Your task to perform on an android device: Go to Amazon Image 0: 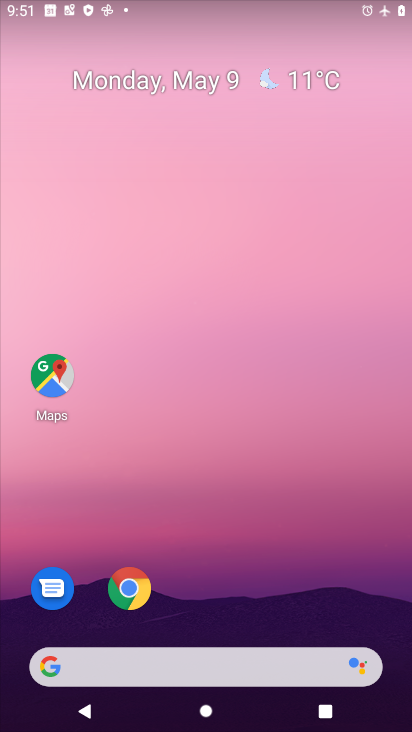
Step 0: drag from (293, 599) to (260, 44)
Your task to perform on an android device: Go to Amazon Image 1: 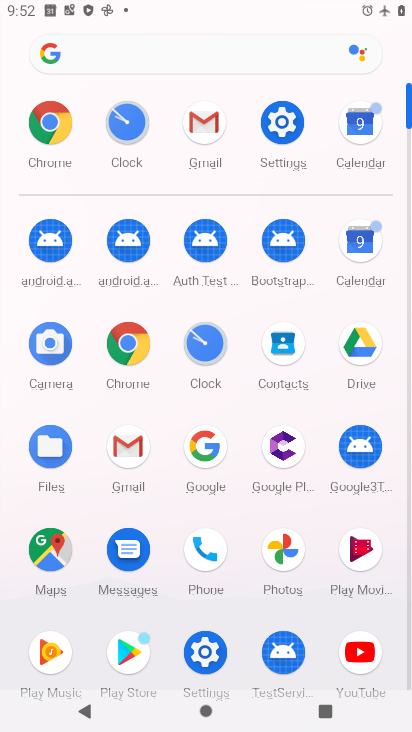
Step 1: click (128, 361)
Your task to perform on an android device: Go to Amazon Image 2: 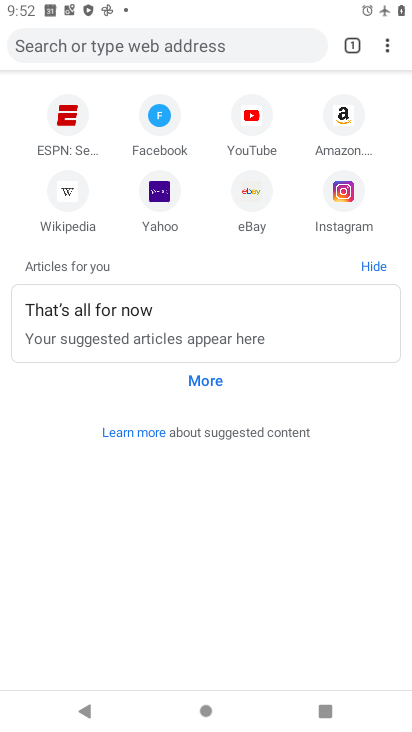
Step 2: click (320, 109)
Your task to perform on an android device: Go to Amazon Image 3: 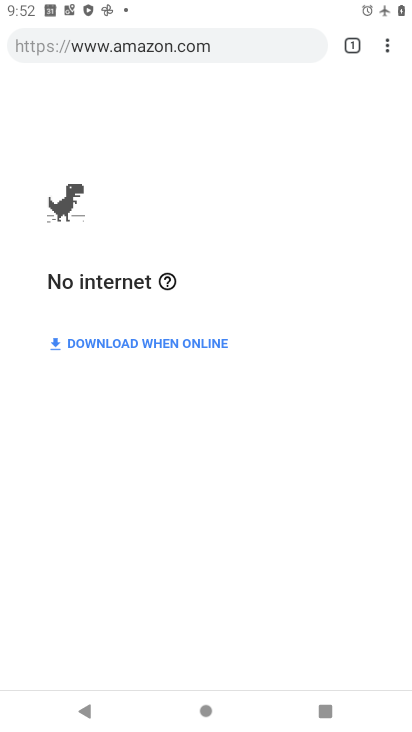
Step 3: task complete